Your task to perform on an android device: change notifications settings Image 0: 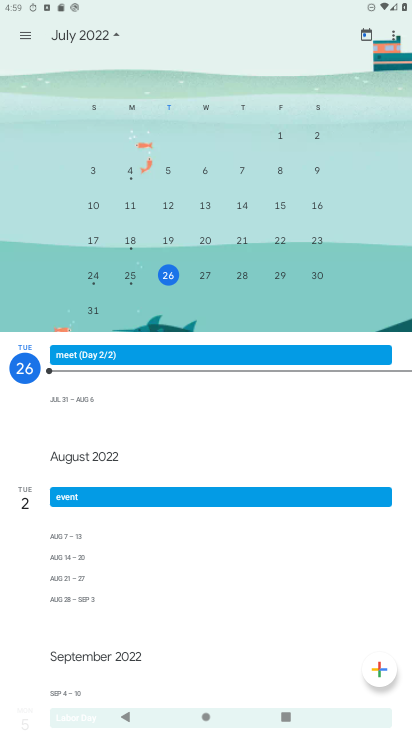
Step 0: press home button
Your task to perform on an android device: change notifications settings Image 1: 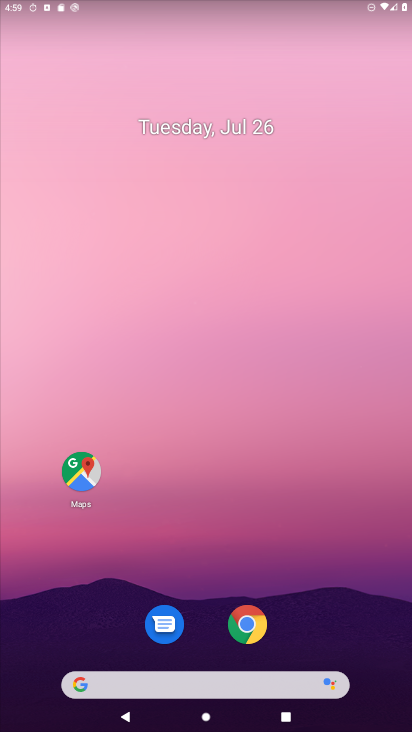
Step 1: drag from (309, 679) to (316, 71)
Your task to perform on an android device: change notifications settings Image 2: 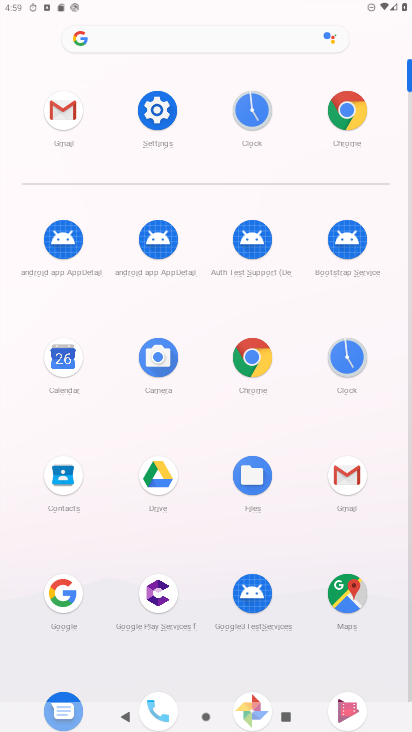
Step 2: click (158, 108)
Your task to perform on an android device: change notifications settings Image 3: 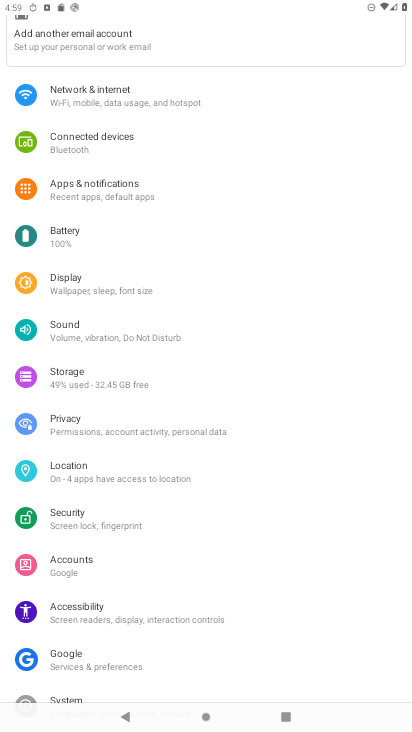
Step 3: click (160, 190)
Your task to perform on an android device: change notifications settings Image 4: 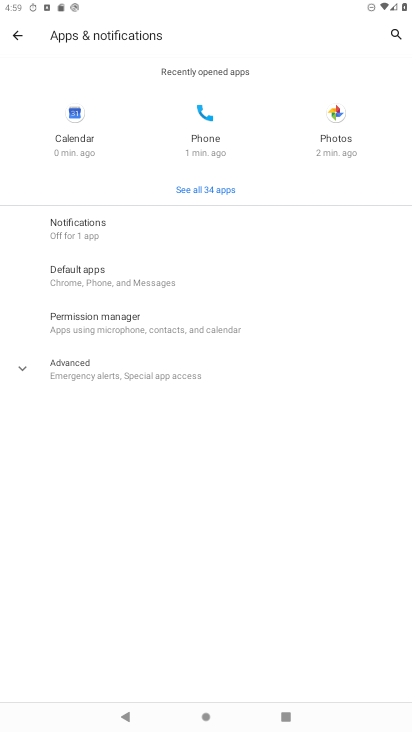
Step 4: click (125, 236)
Your task to perform on an android device: change notifications settings Image 5: 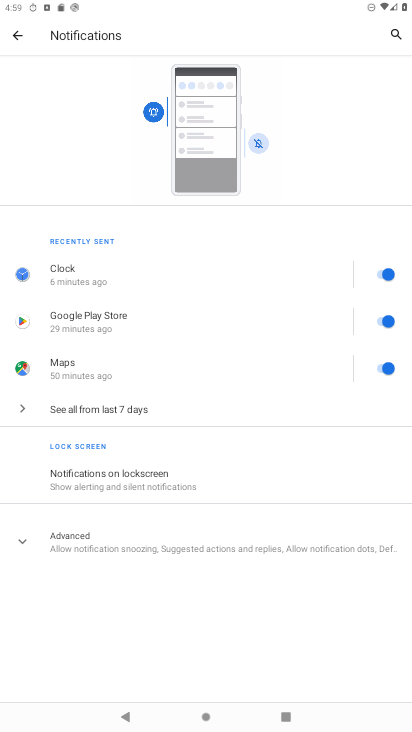
Step 5: task complete